Your task to perform on an android device: toggle airplane mode Image 0: 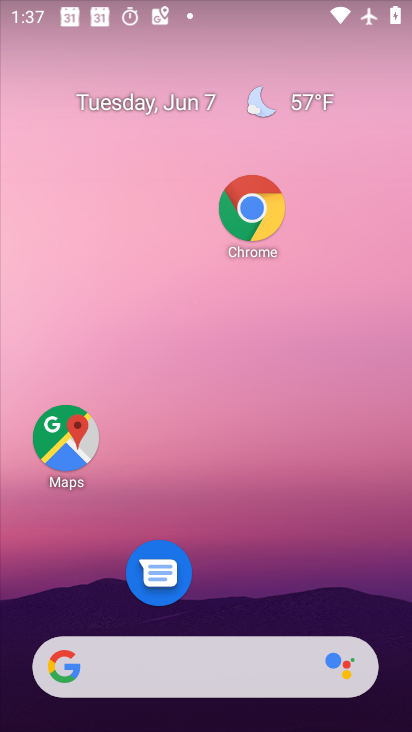
Step 0: drag from (215, 598) to (197, 198)
Your task to perform on an android device: toggle airplane mode Image 1: 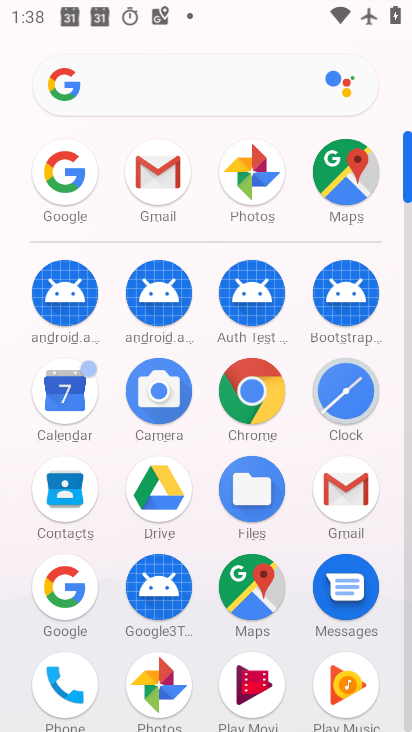
Step 1: drag from (186, 589) to (191, 338)
Your task to perform on an android device: toggle airplane mode Image 2: 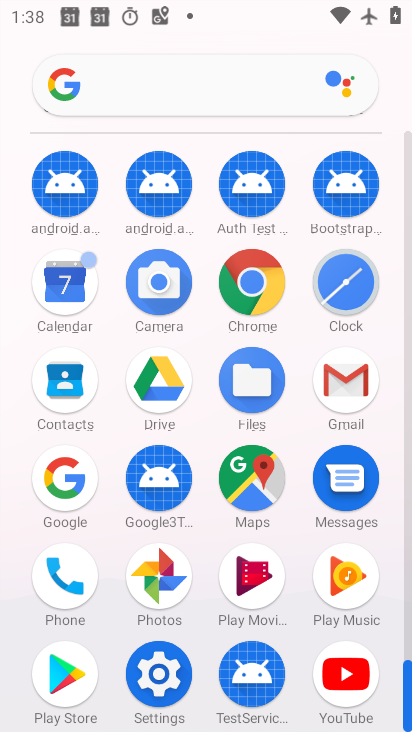
Step 2: click (171, 653)
Your task to perform on an android device: toggle airplane mode Image 3: 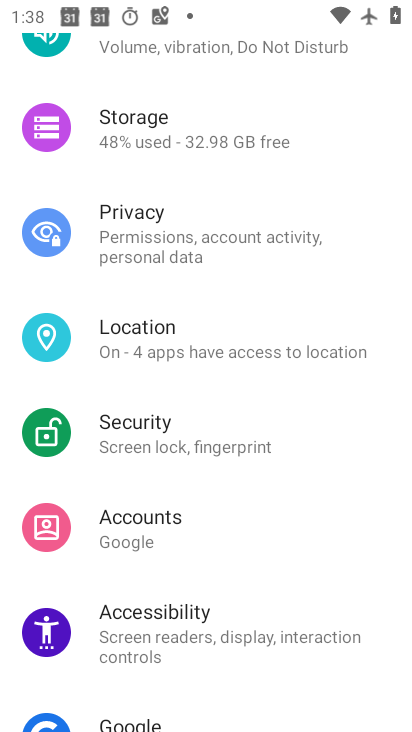
Step 3: drag from (233, 172) to (247, 478)
Your task to perform on an android device: toggle airplane mode Image 4: 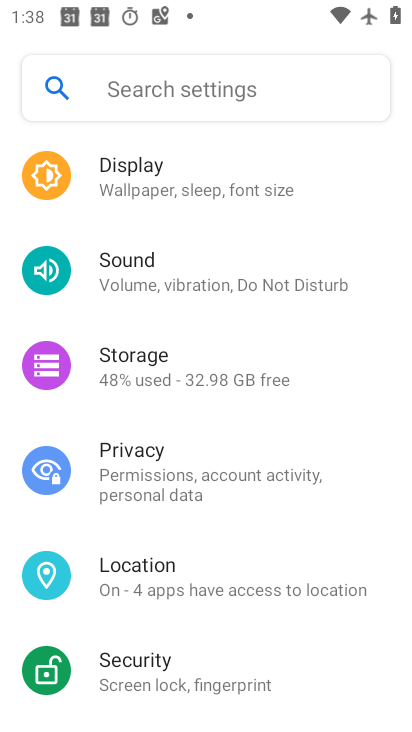
Step 4: drag from (199, 234) to (199, 460)
Your task to perform on an android device: toggle airplane mode Image 5: 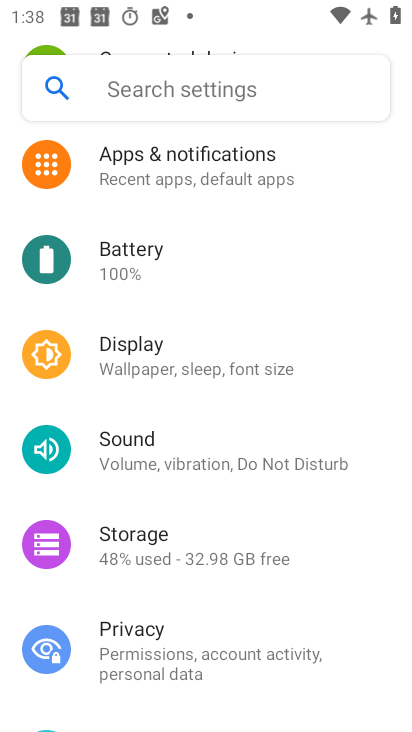
Step 5: drag from (177, 269) to (177, 512)
Your task to perform on an android device: toggle airplane mode Image 6: 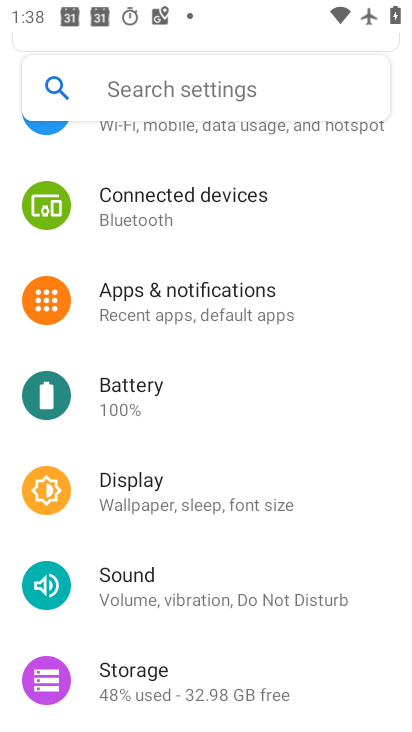
Step 6: drag from (192, 253) to (211, 525)
Your task to perform on an android device: toggle airplane mode Image 7: 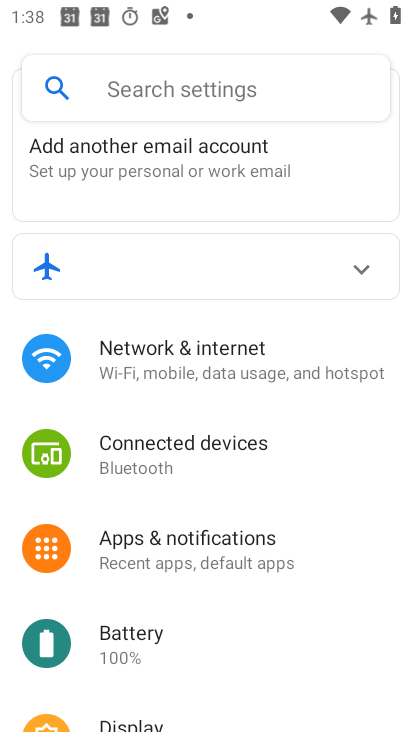
Step 7: click (193, 376)
Your task to perform on an android device: toggle airplane mode Image 8: 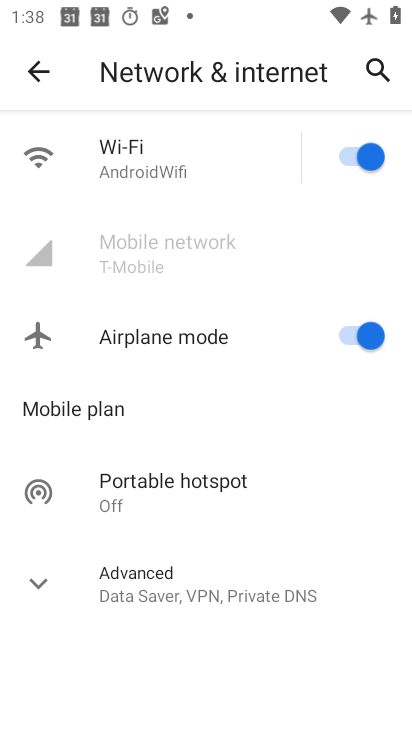
Step 8: click (337, 334)
Your task to perform on an android device: toggle airplane mode Image 9: 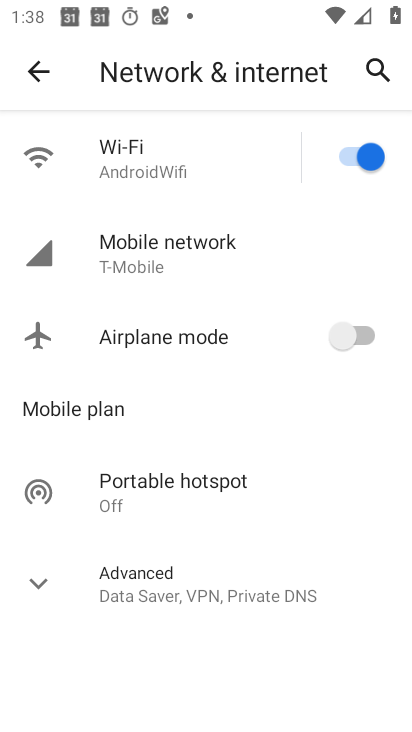
Step 9: task complete